Your task to perform on an android device: Open location settings Image 0: 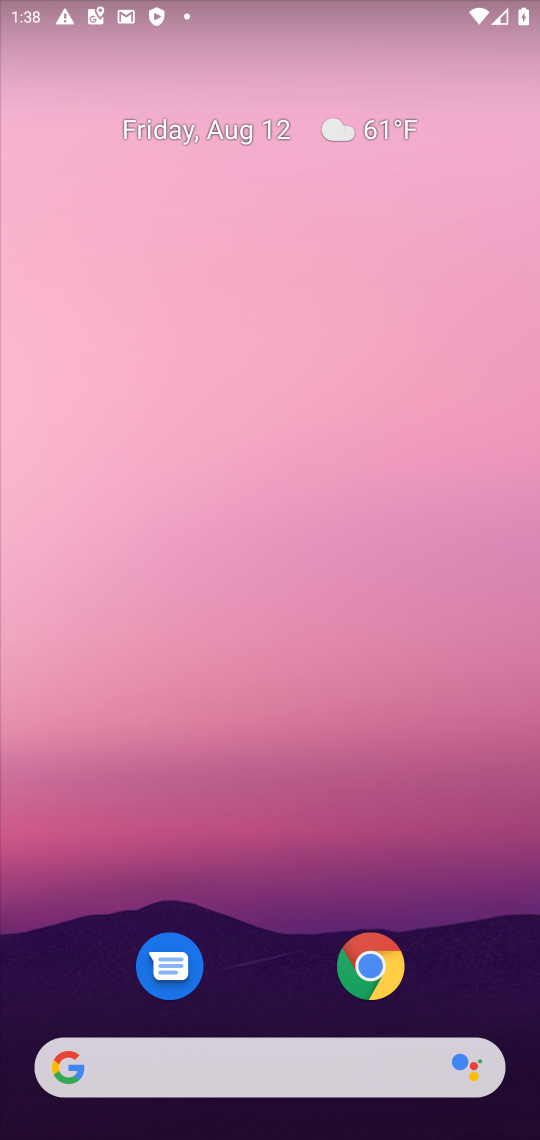
Step 0: press home button
Your task to perform on an android device: Open location settings Image 1: 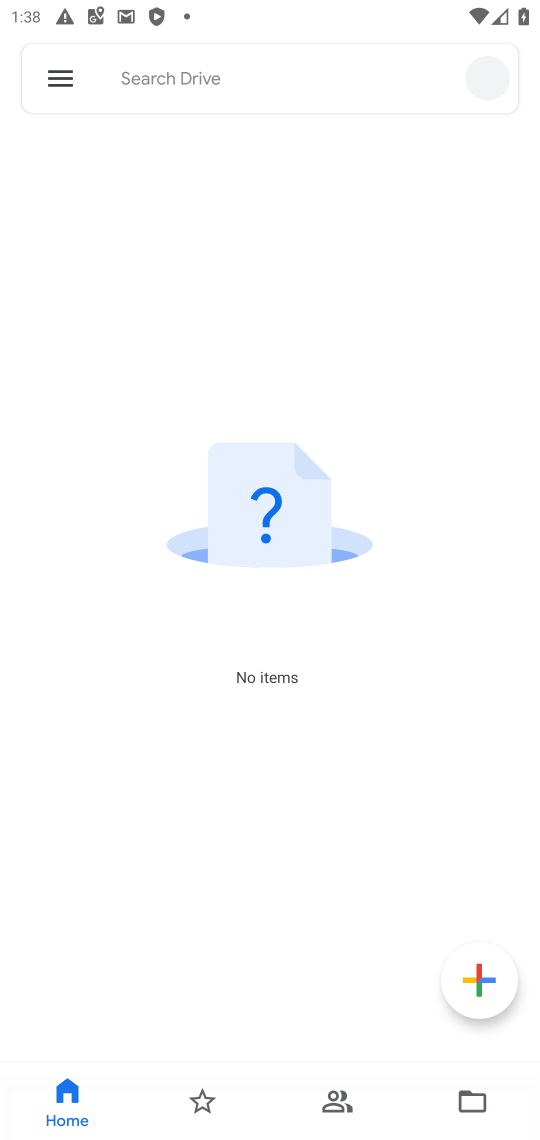
Step 1: drag from (451, 798) to (513, 57)
Your task to perform on an android device: Open location settings Image 2: 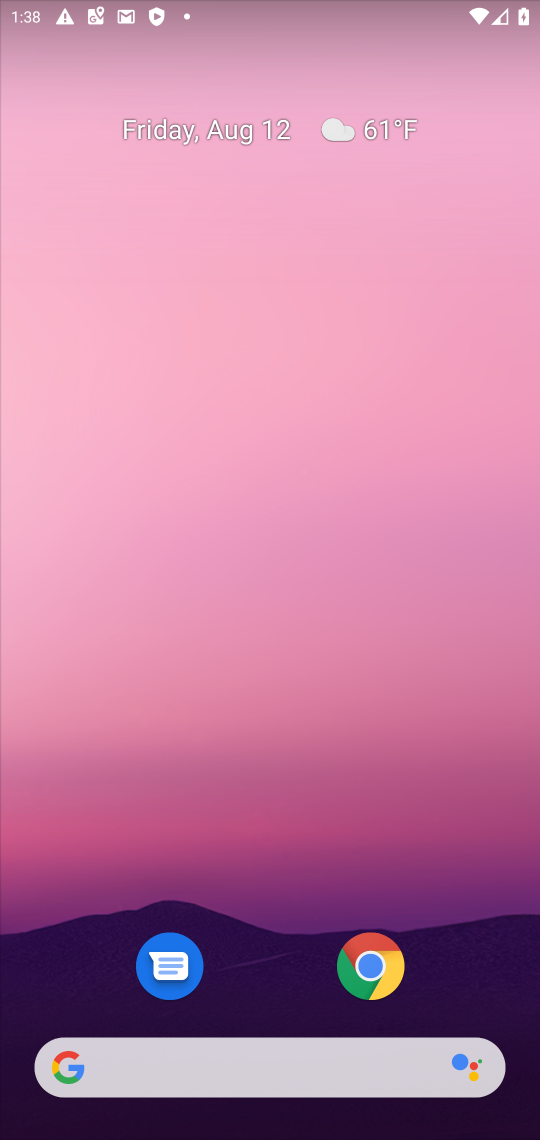
Step 2: press home button
Your task to perform on an android device: Open location settings Image 3: 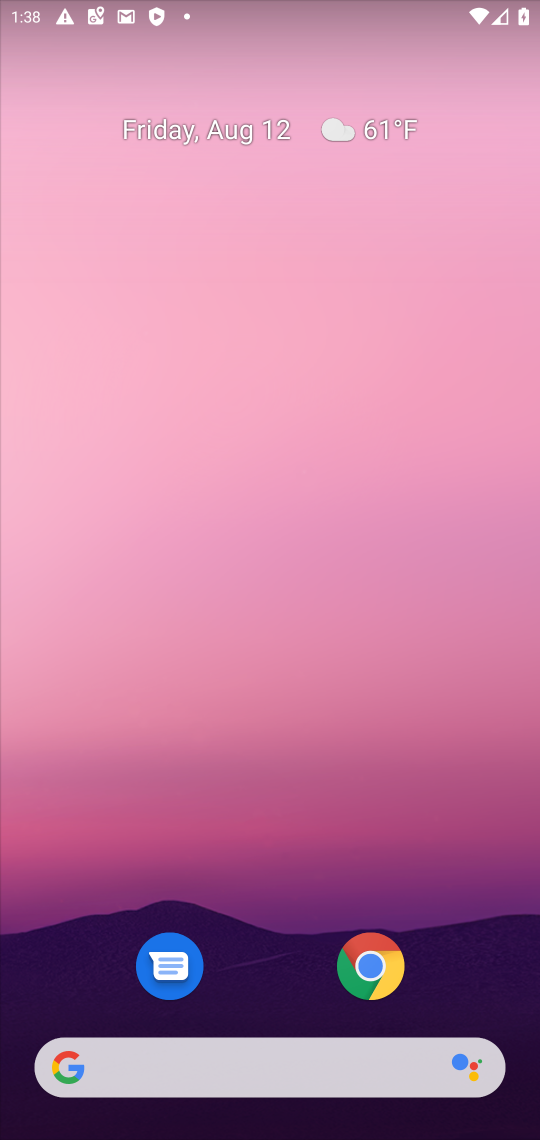
Step 3: drag from (249, 934) to (296, 78)
Your task to perform on an android device: Open location settings Image 4: 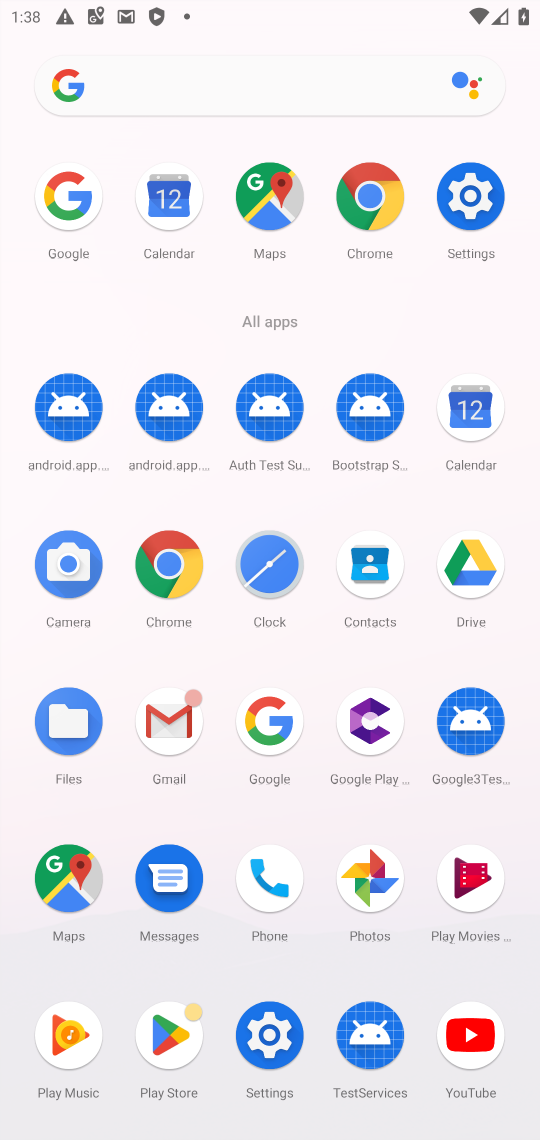
Step 4: click (478, 199)
Your task to perform on an android device: Open location settings Image 5: 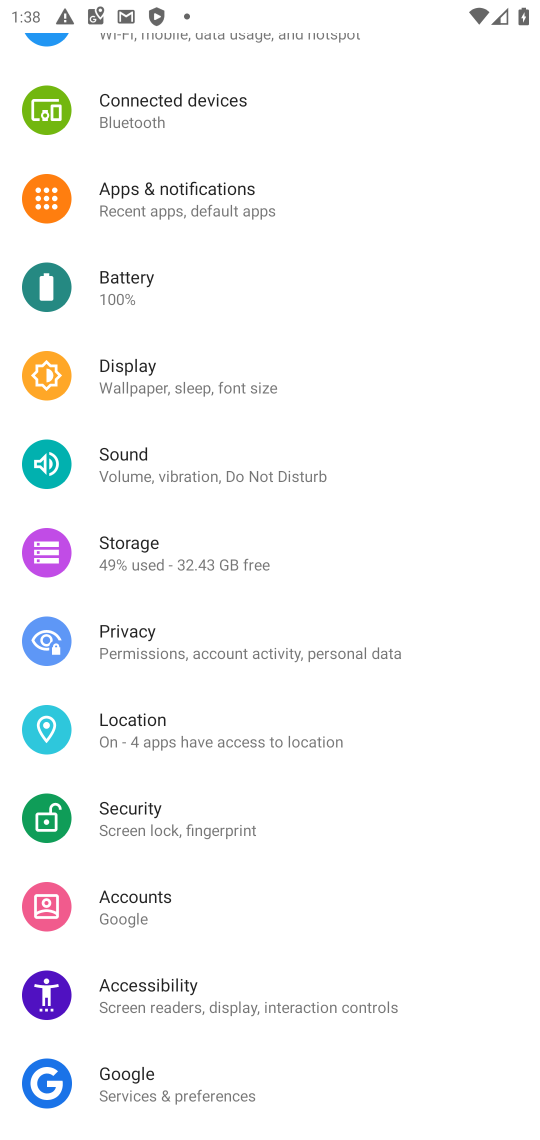
Step 5: click (196, 763)
Your task to perform on an android device: Open location settings Image 6: 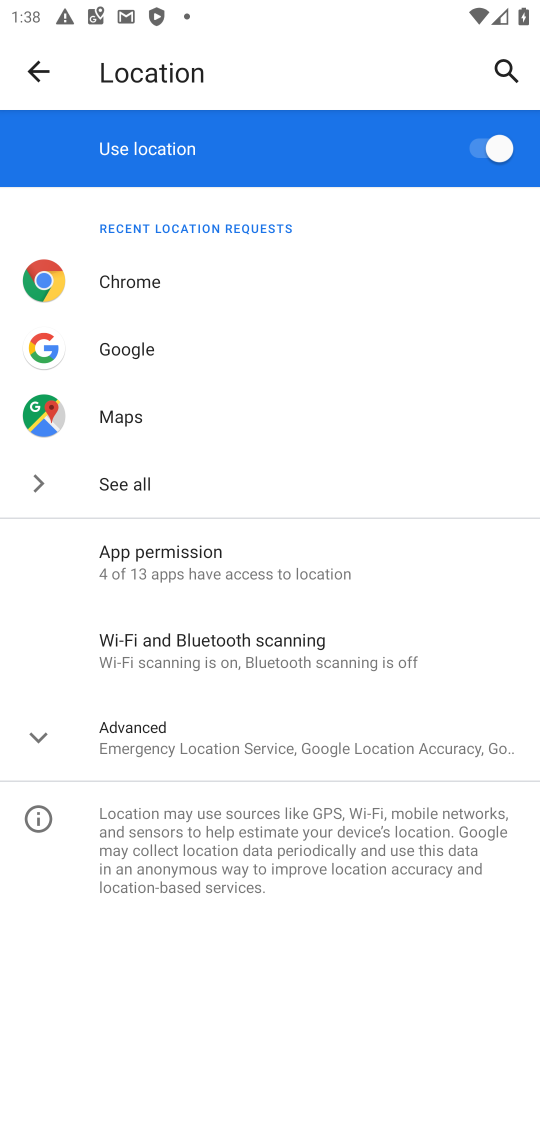
Step 6: task complete